Your task to perform on an android device: make emails show in primary in the gmail app Image 0: 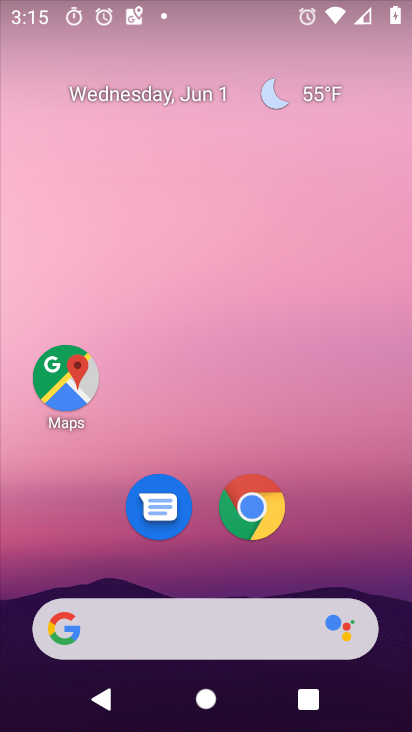
Step 0: drag from (350, 585) to (411, 5)
Your task to perform on an android device: make emails show in primary in the gmail app Image 1: 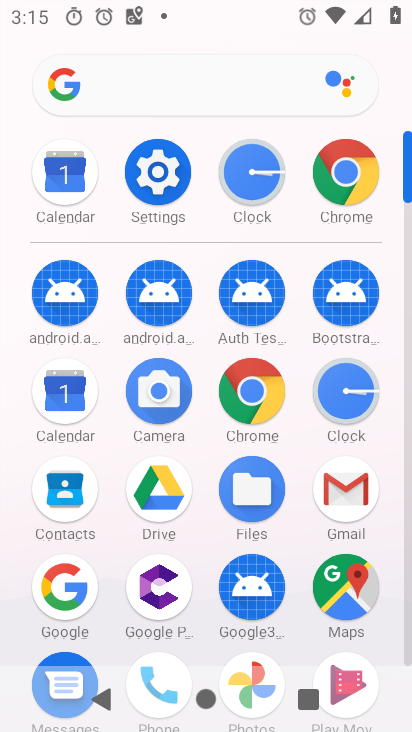
Step 1: click (349, 490)
Your task to perform on an android device: make emails show in primary in the gmail app Image 2: 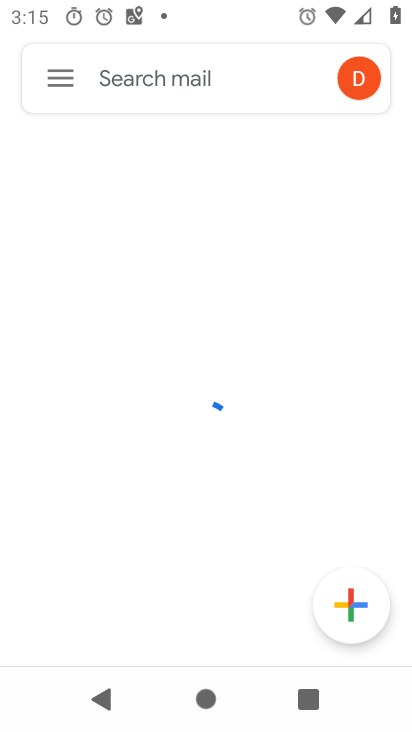
Step 2: click (63, 87)
Your task to perform on an android device: make emails show in primary in the gmail app Image 3: 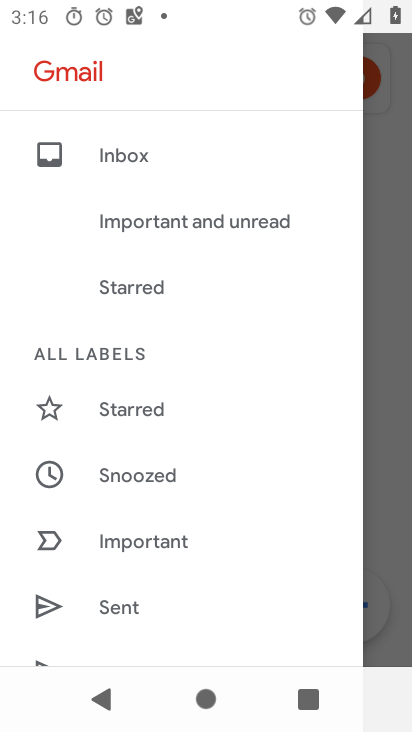
Step 3: drag from (190, 584) to (178, 117)
Your task to perform on an android device: make emails show in primary in the gmail app Image 4: 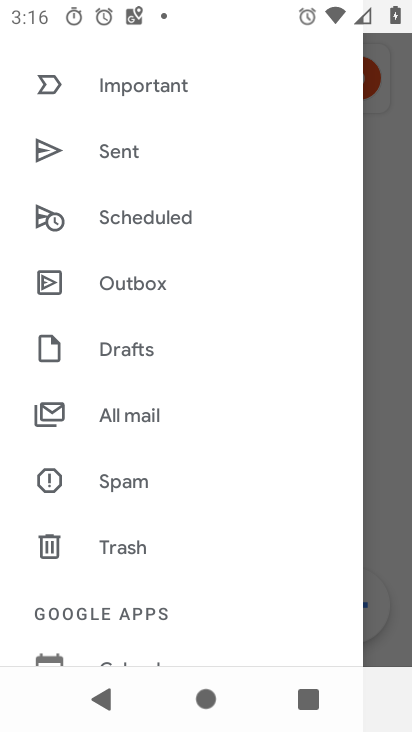
Step 4: drag from (201, 558) to (176, 126)
Your task to perform on an android device: make emails show in primary in the gmail app Image 5: 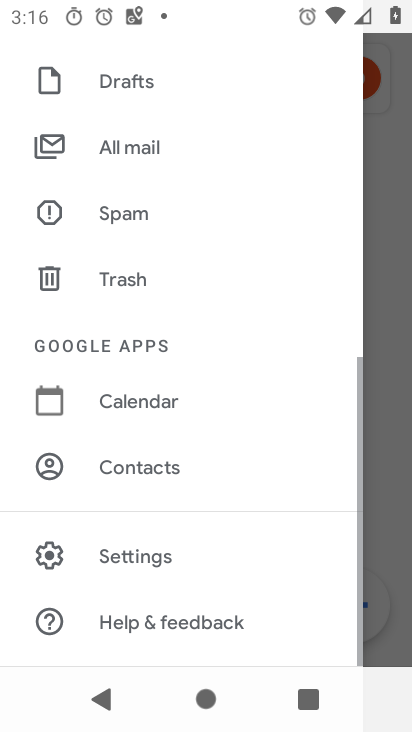
Step 5: click (142, 553)
Your task to perform on an android device: make emails show in primary in the gmail app Image 6: 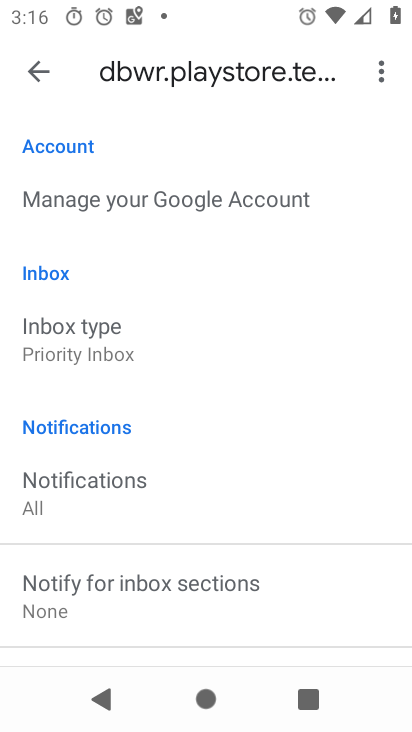
Step 6: task complete